Your task to perform on an android device: Go to eBay Image 0: 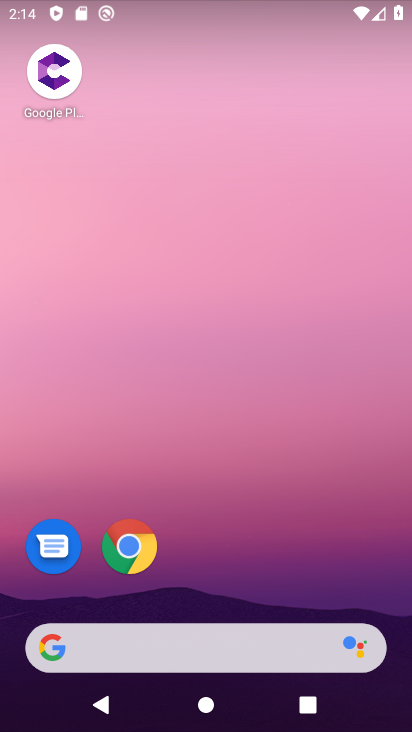
Step 0: click (133, 538)
Your task to perform on an android device: Go to eBay Image 1: 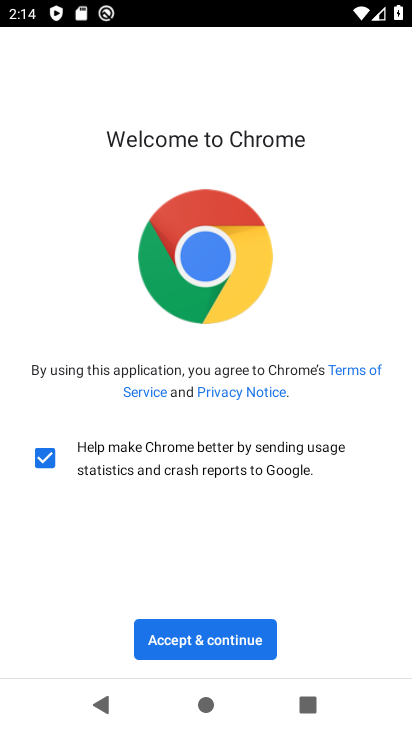
Step 1: click (214, 637)
Your task to perform on an android device: Go to eBay Image 2: 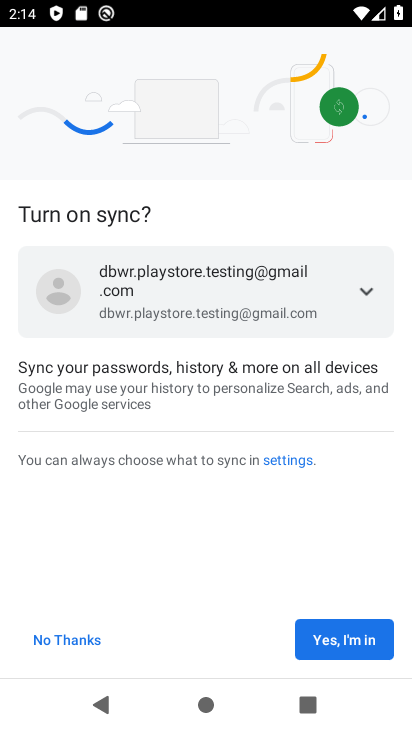
Step 2: click (347, 646)
Your task to perform on an android device: Go to eBay Image 3: 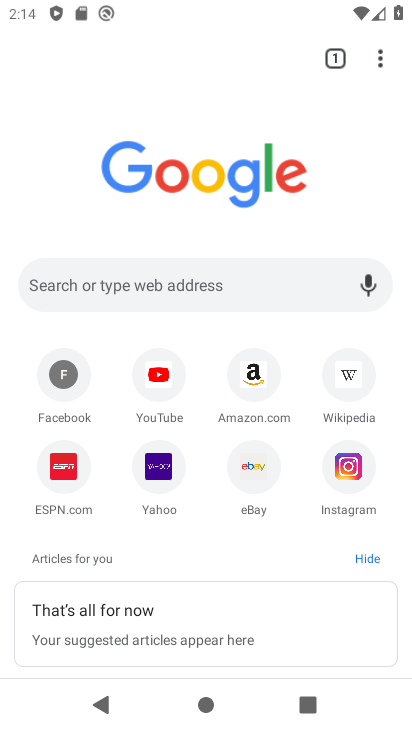
Step 3: click (89, 294)
Your task to perform on an android device: Go to eBay Image 4: 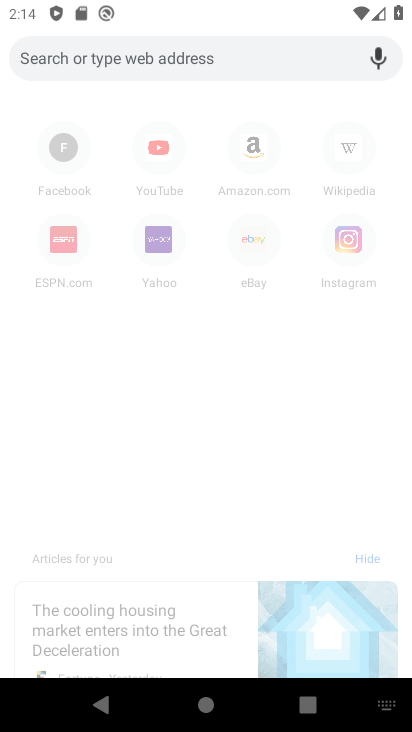
Step 4: type "eBay"
Your task to perform on an android device: Go to eBay Image 5: 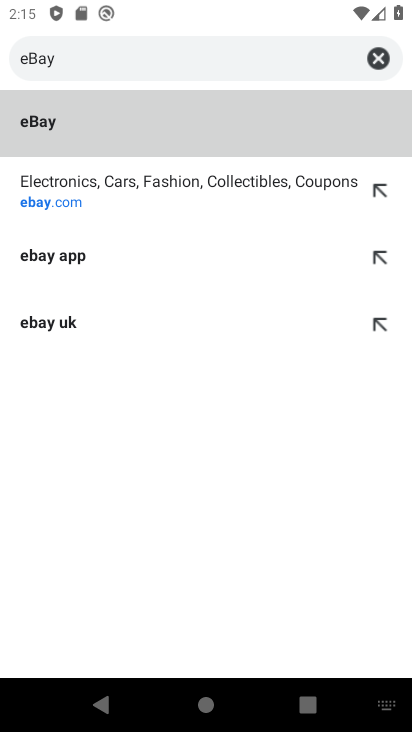
Step 5: click (143, 107)
Your task to perform on an android device: Go to eBay Image 6: 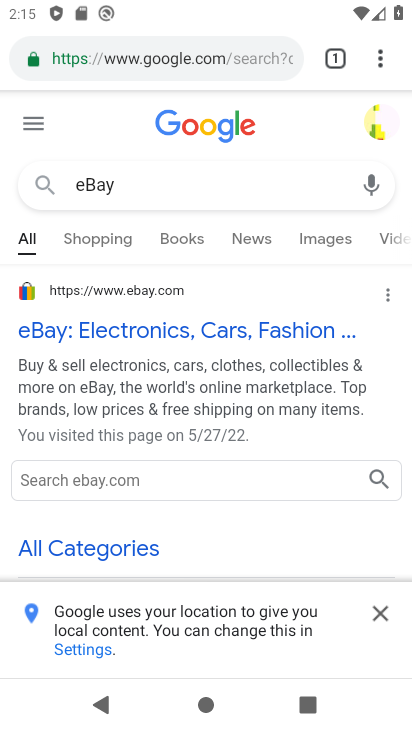
Step 6: task complete